Your task to perform on an android device: Search for "logitech g910" on costco.com, select the first entry, add it to the cart, then select checkout. Image 0: 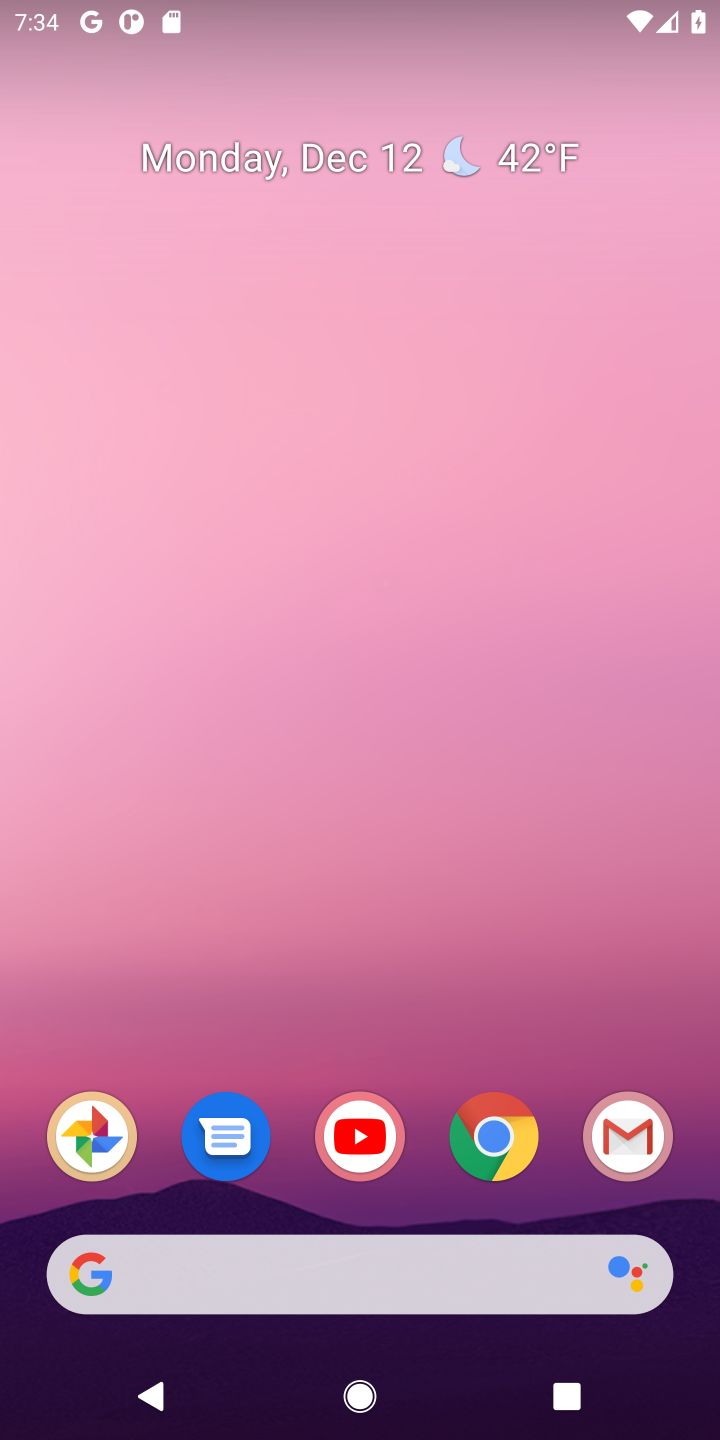
Step 0: click (496, 1138)
Your task to perform on an android device: Search for "logitech g910" on costco.com, select the first entry, add it to the cart, then select checkout. Image 1: 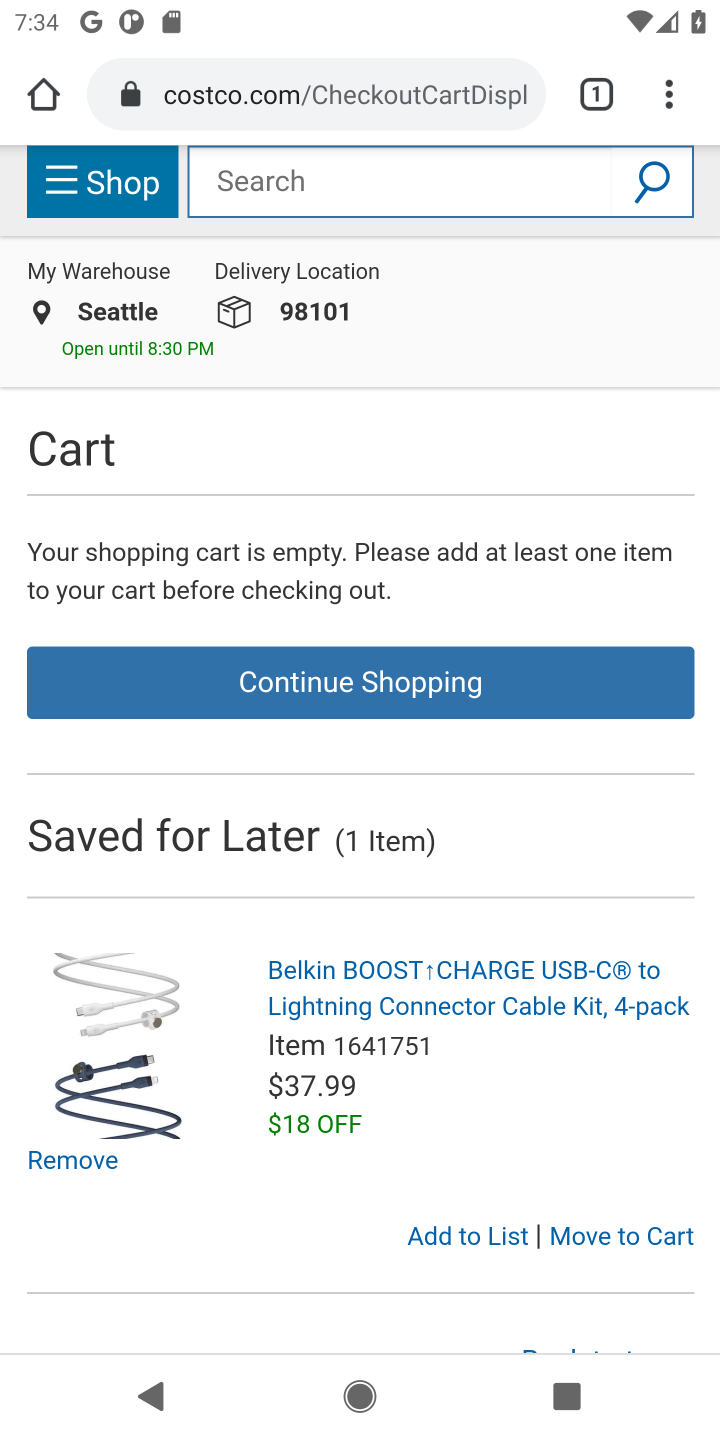
Step 1: click (234, 174)
Your task to perform on an android device: Search for "logitech g910" on costco.com, select the first entry, add it to the cart, then select checkout. Image 2: 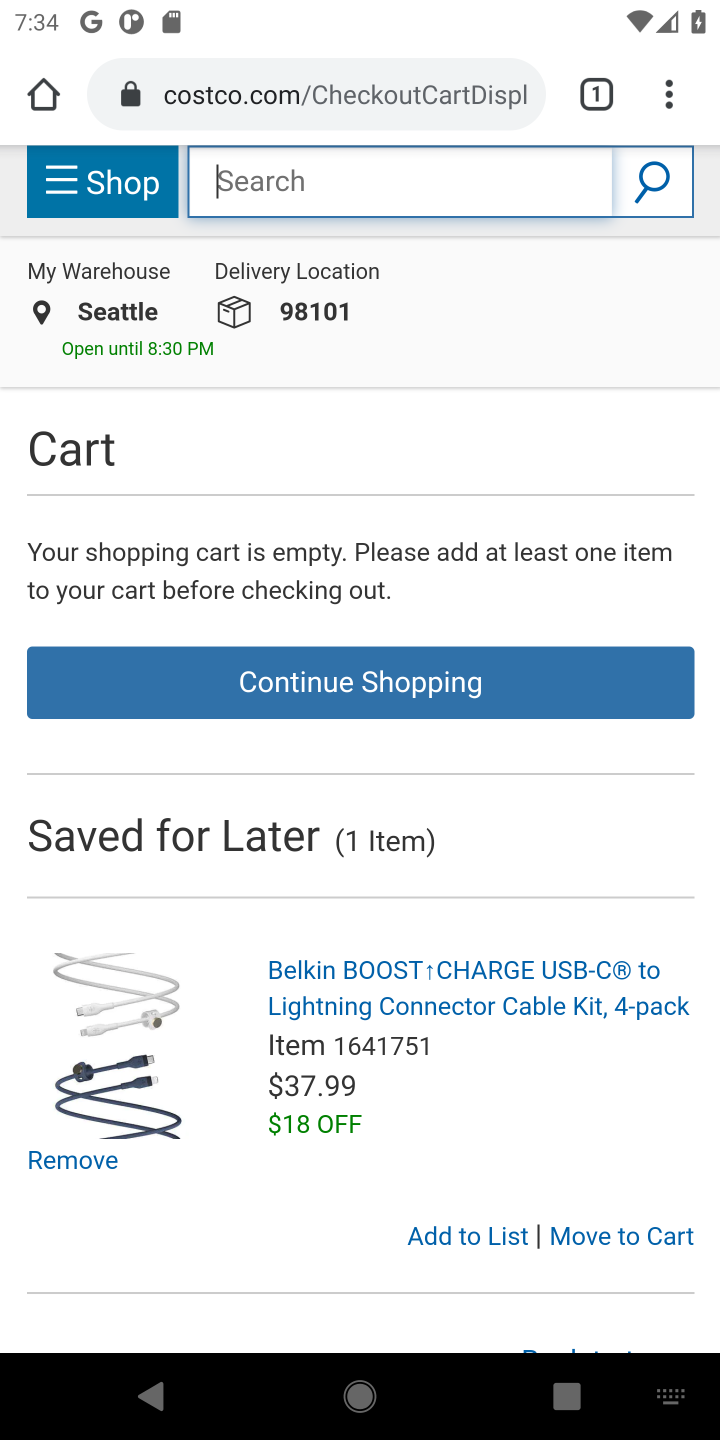
Step 2: type "logitech g910"
Your task to perform on an android device: Search for "logitech g910" on costco.com, select the first entry, add it to the cart, then select checkout. Image 3: 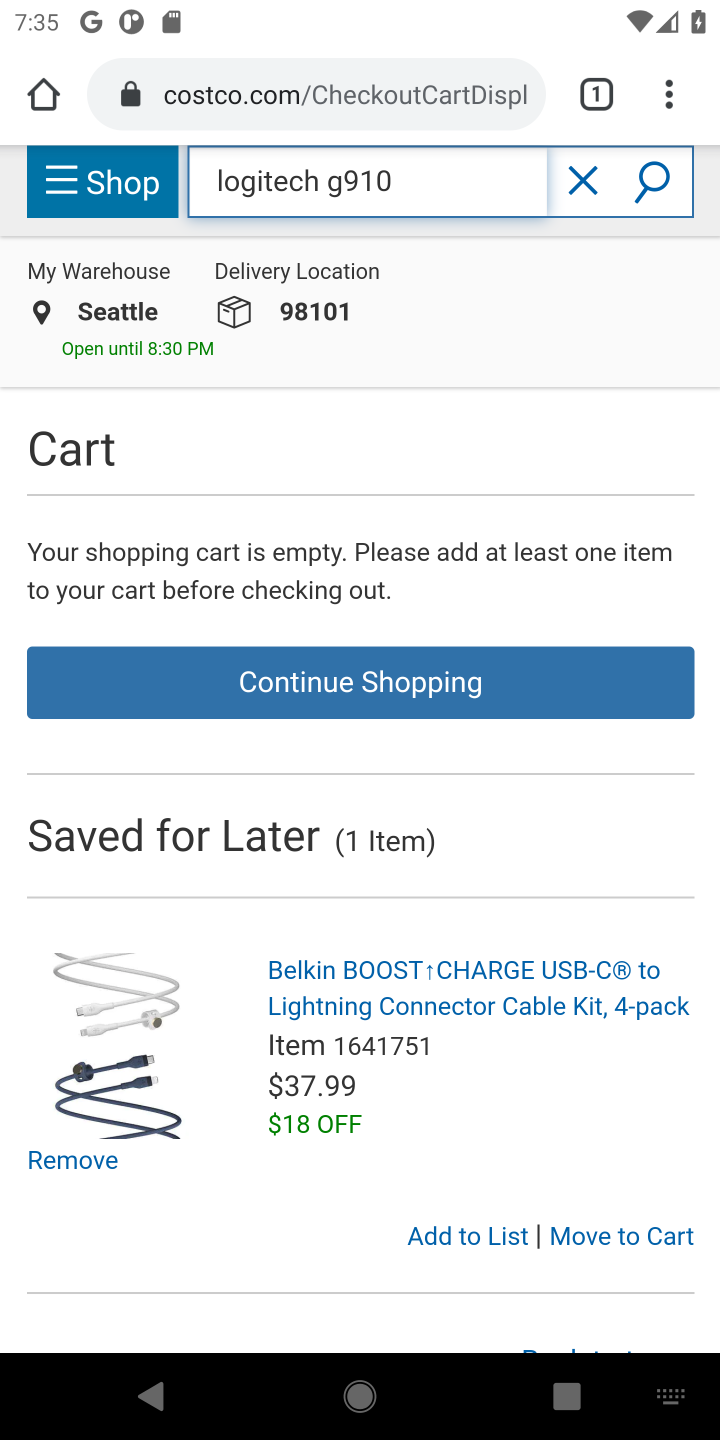
Step 3: click (662, 185)
Your task to perform on an android device: Search for "logitech g910" on costco.com, select the first entry, add it to the cart, then select checkout. Image 4: 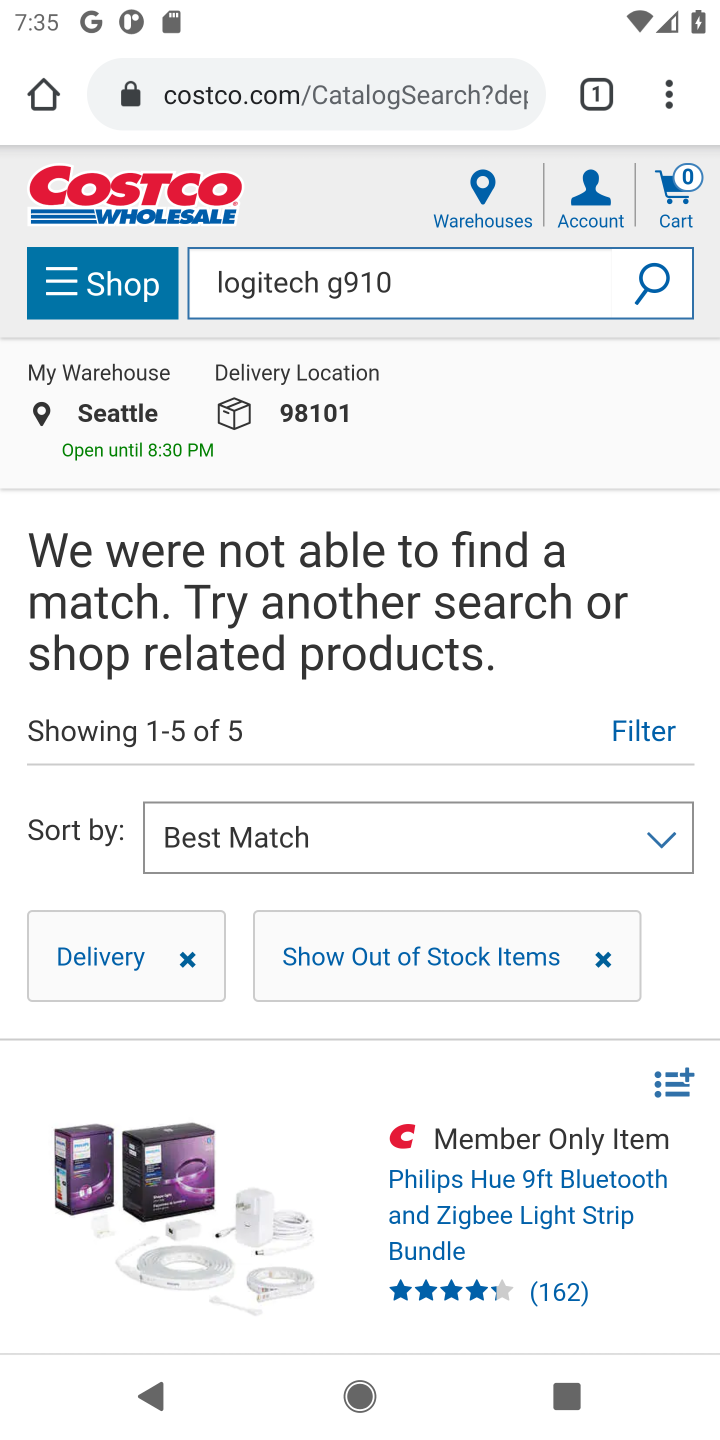
Step 4: task complete